Your task to perform on an android device: Search for a coffee table on Crate & Barrel Image 0: 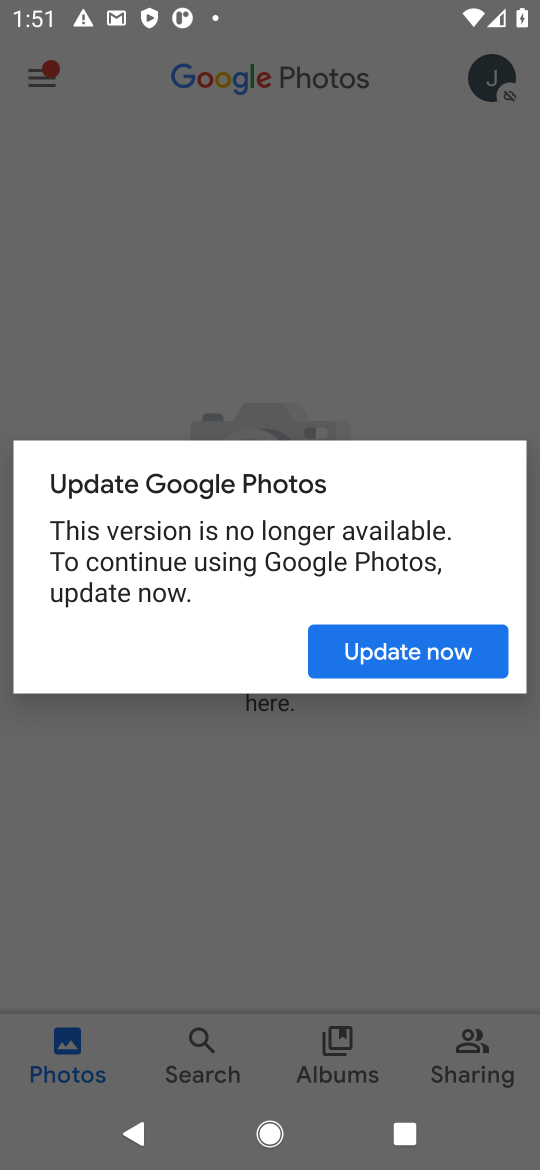
Step 0: press home button
Your task to perform on an android device: Search for a coffee table on Crate & Barrel Image 1: 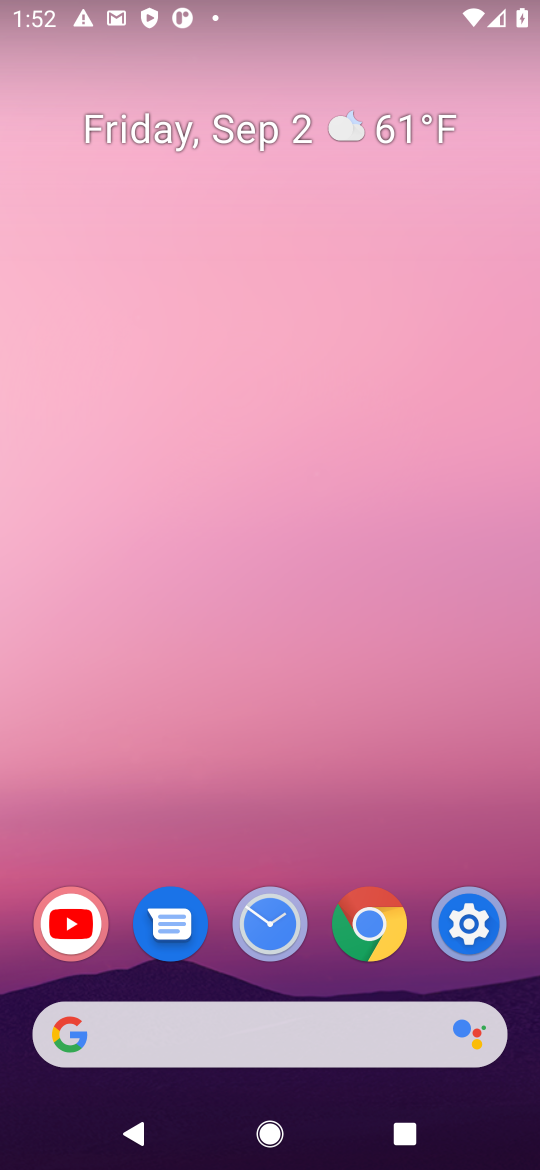
Step 1: click (387, 1026)
Your task to perform on an android device: Search for a coffee table on Crate & Barrel Image 2: 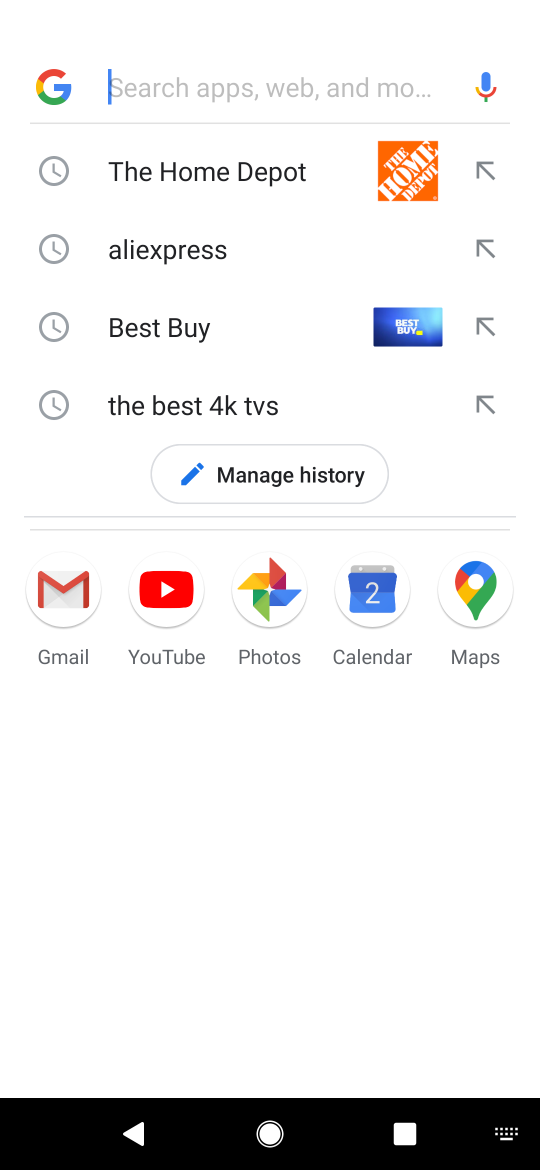
Step 2: press enter
Your task to perform on an android device: Search for a coffee table on Crate & Barrel Image 3: 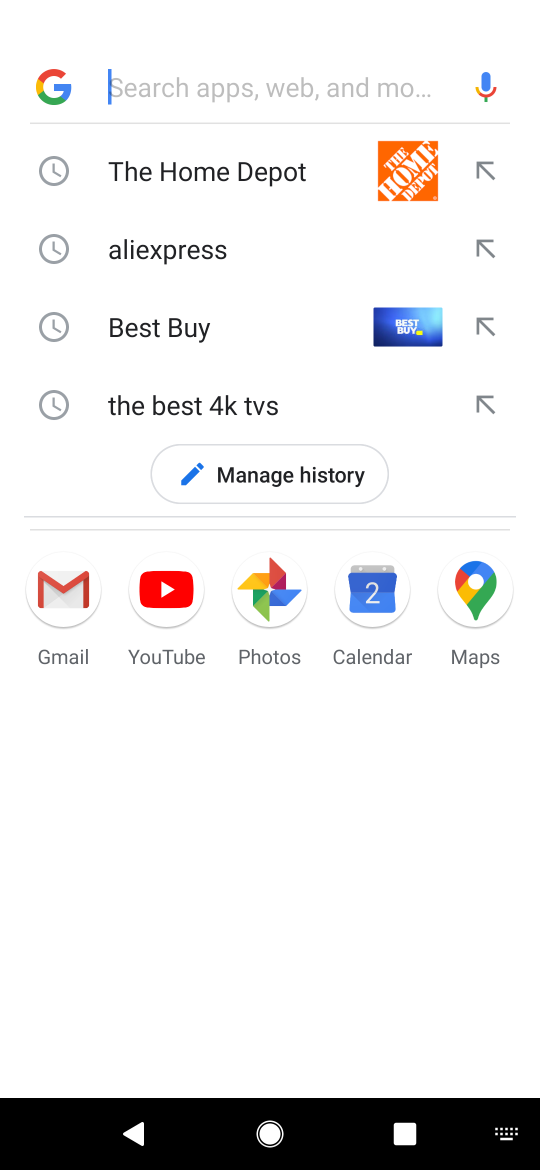
Step 3: type "crate barrel"
Your task to perform on an android device: Search for a coffee table on Crate & Barrel Image 4: 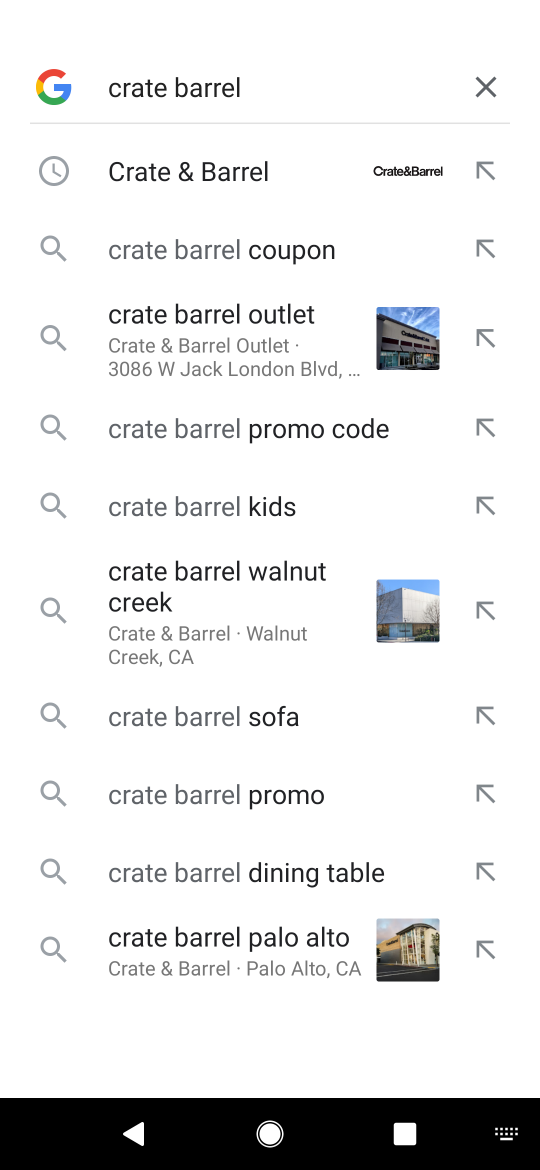
Step 4: click (287, 176)
Your task to perform on an android device: Search for a coffee table on Crate & Barrel Image 5: 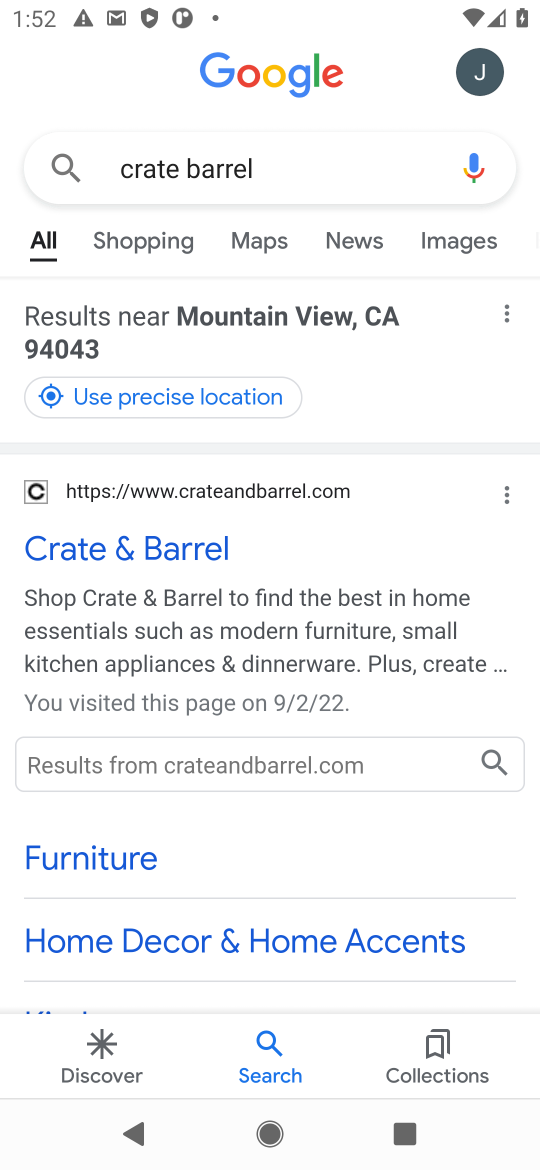
Step 5: click (188, 544)
Your task to perform on an android device: Search for a coffee table on Crate & Barrel Image 6: 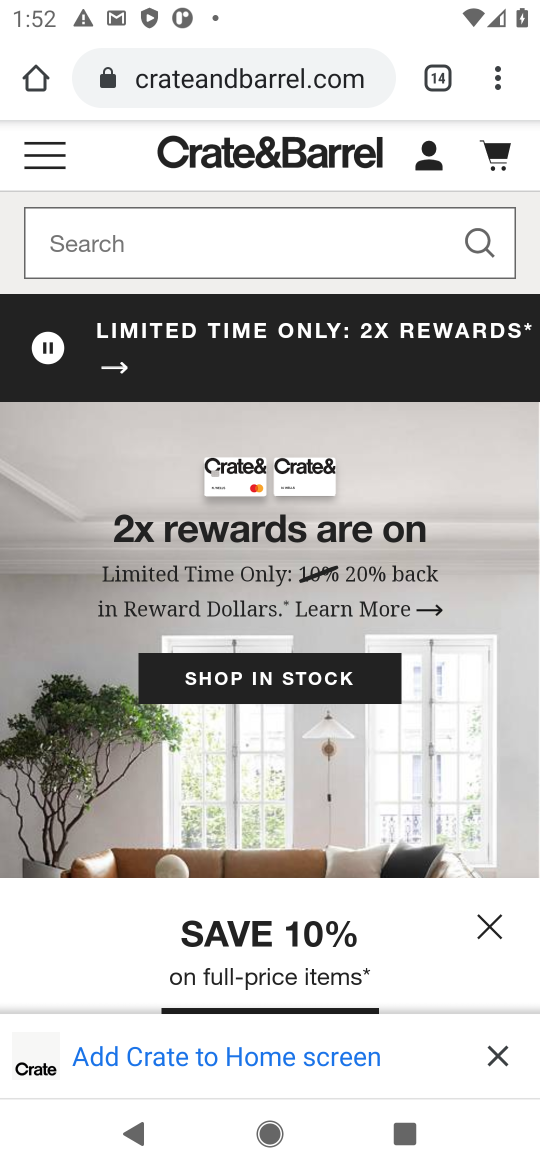
Step 6: click (261, 234)
Your task to perform on an android device: Search for a coffee table on Crate & Barrel Image 7: 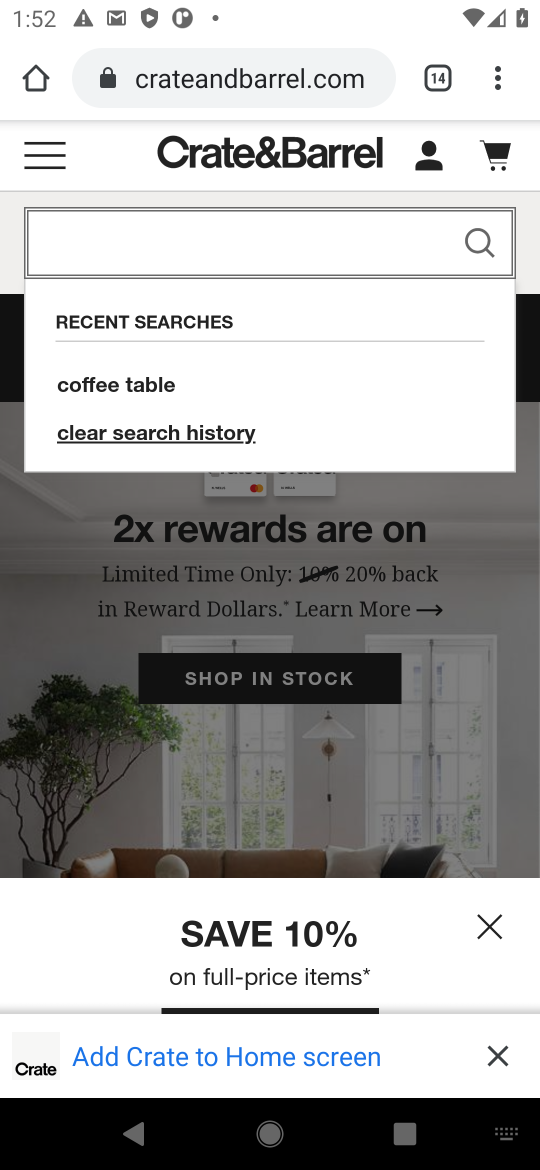
Step 7: click (153, 384)
Your task to perform on an android device: Search for a coffee table on Crate & Barrel Image 8: 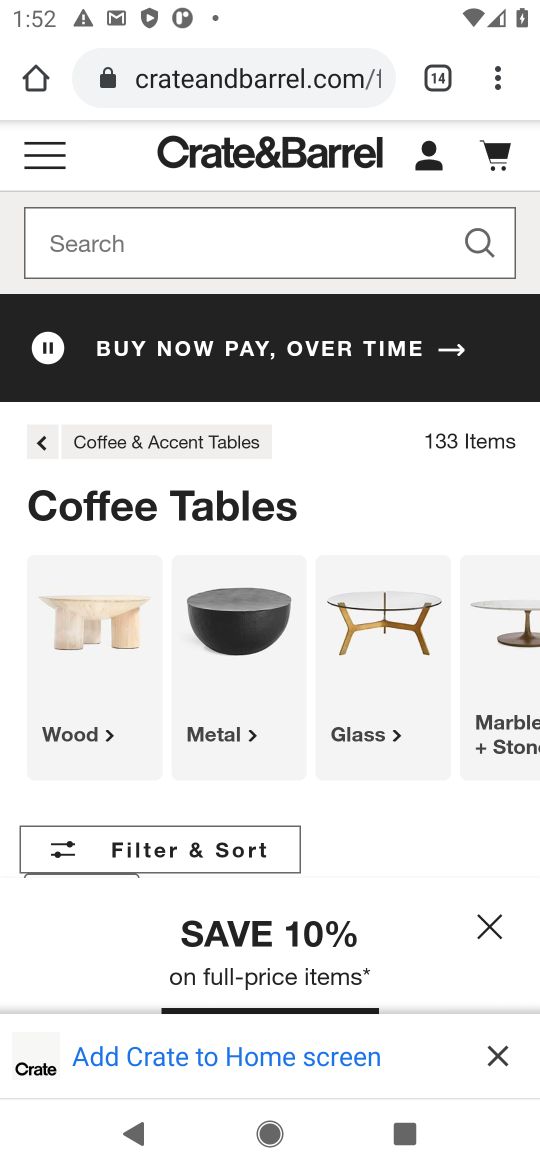
Step 8: task complete